Your task to perform on an android device: check the backup settings in the google photos Image 0: 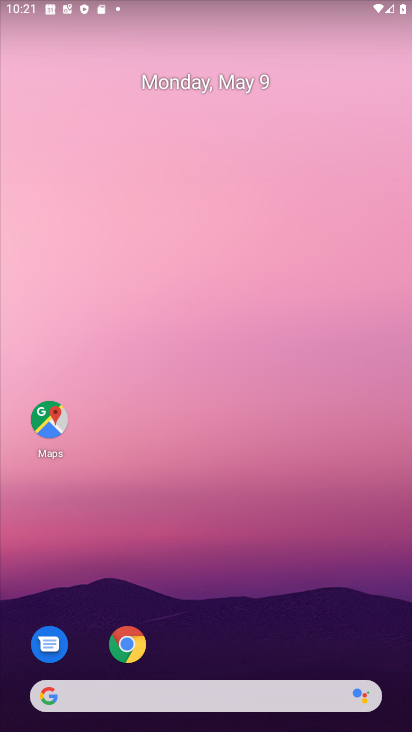
Step 0: drag from (224, 645) to (256, 336)
Your task to perform on an android device: check the backup settings in the google photos Image 1: 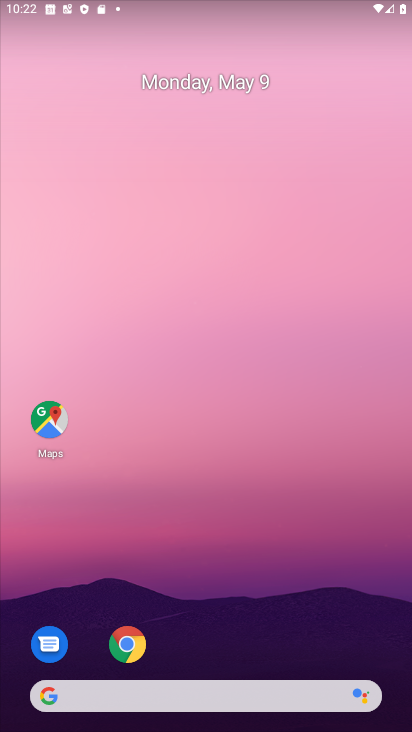
Step 1: drag from (222, 654) to (286, 2)
Your task to perform on an android device: check the backup settings in the google photos Image 2: 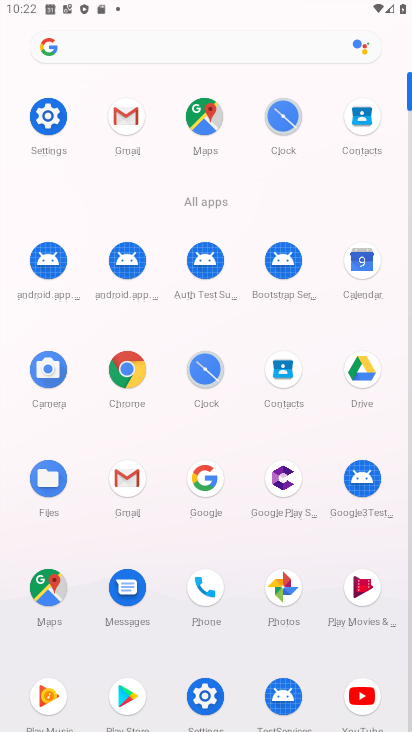
Step 2: click (284, 577)
Your task to perform on an android device: check the backup settings in the google photos Image 3: 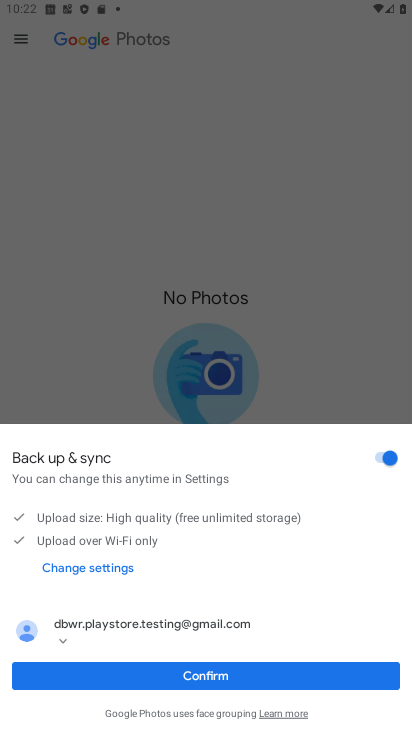
Step 3: click (262, 682)
Your task to perform on an android device: check the backup settings in the google photos Image 4: 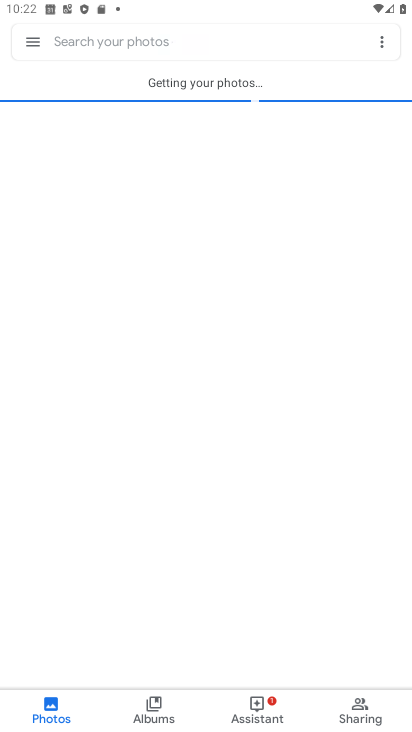
Step 4: click (35, 39)
Your task to perform on an android device: check the backup settings in the google photos Image 5: 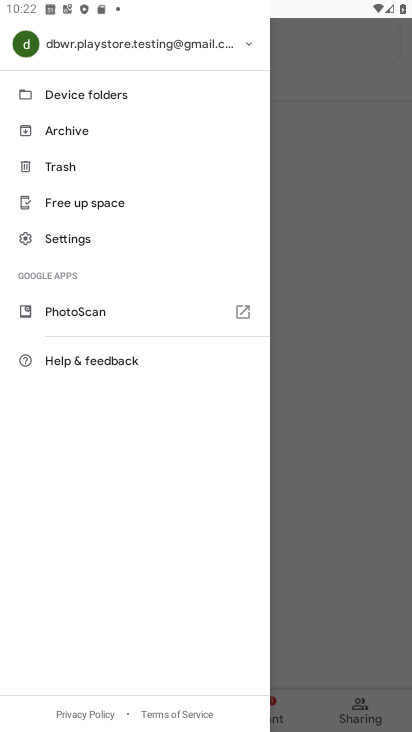
Step 5: click (88, 239)
Your task to perform on an android device: check the backup settings in the google photos Image 6: 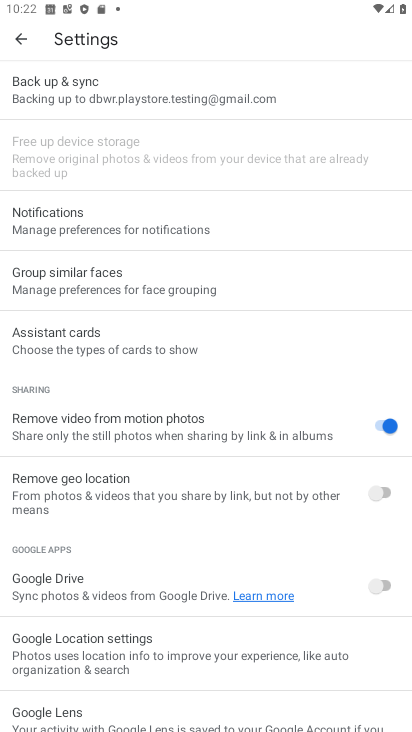
Step 6: click (113, 99)
Your task to perform on an android device: check the backup settings in the google photos Image 7: 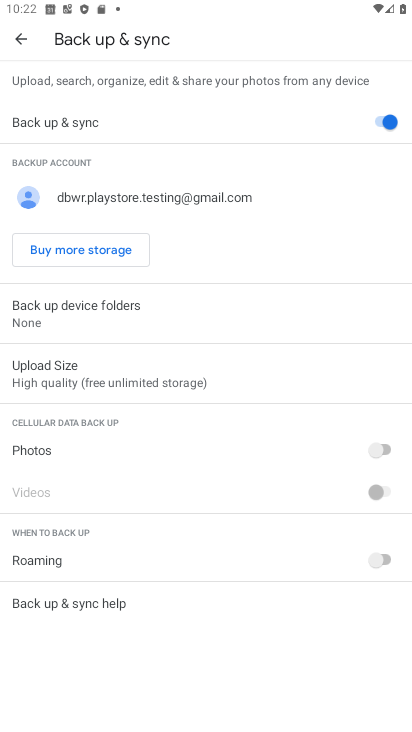
Step 7: task complete